Your task to perform on an android device: Go to privacy settings Image 0: 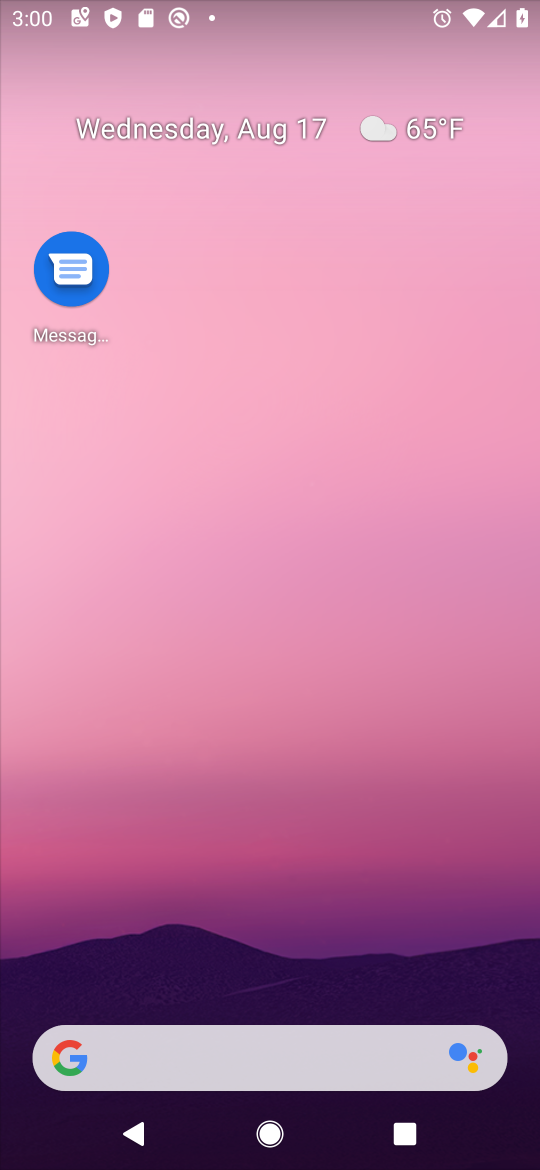
Step 0: drag from (331, 968) to (379, 130)
Your task to perform on an android device: Go to privacy settings Image 1: 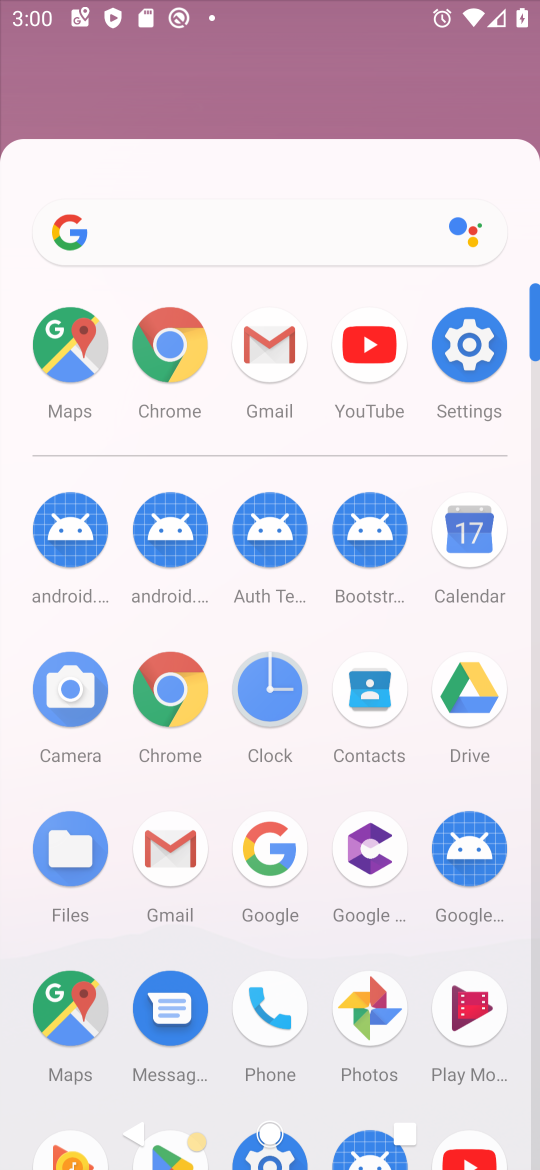
Step 1: click (461, 197)
Your task to perform on an android device: Go to privacy settings Image 2: 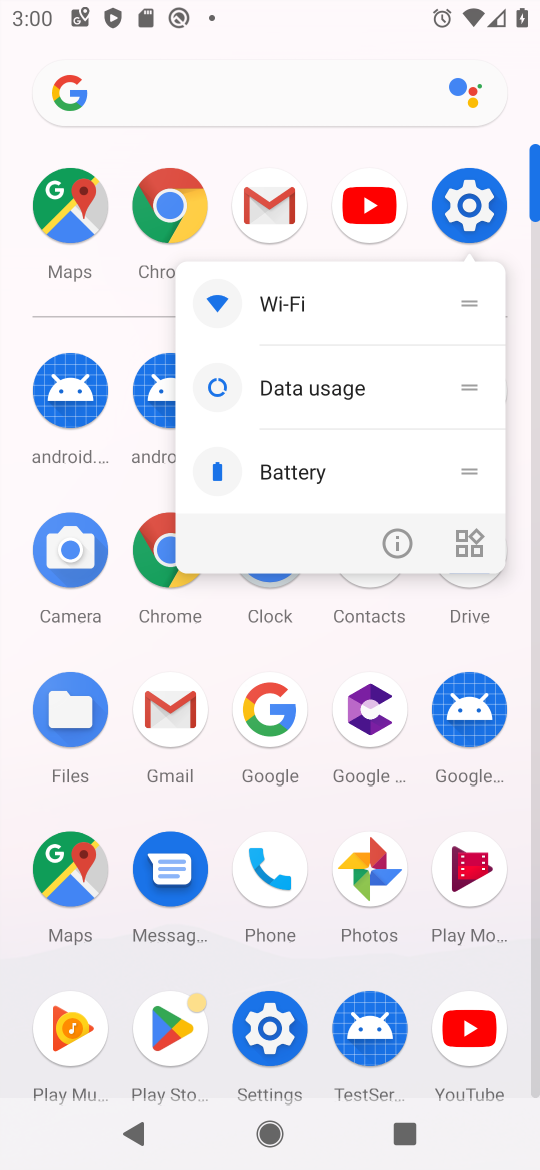
Step 2: click (492, 196)
Your task to perform on an android device: Go to privacy settings Image 3: 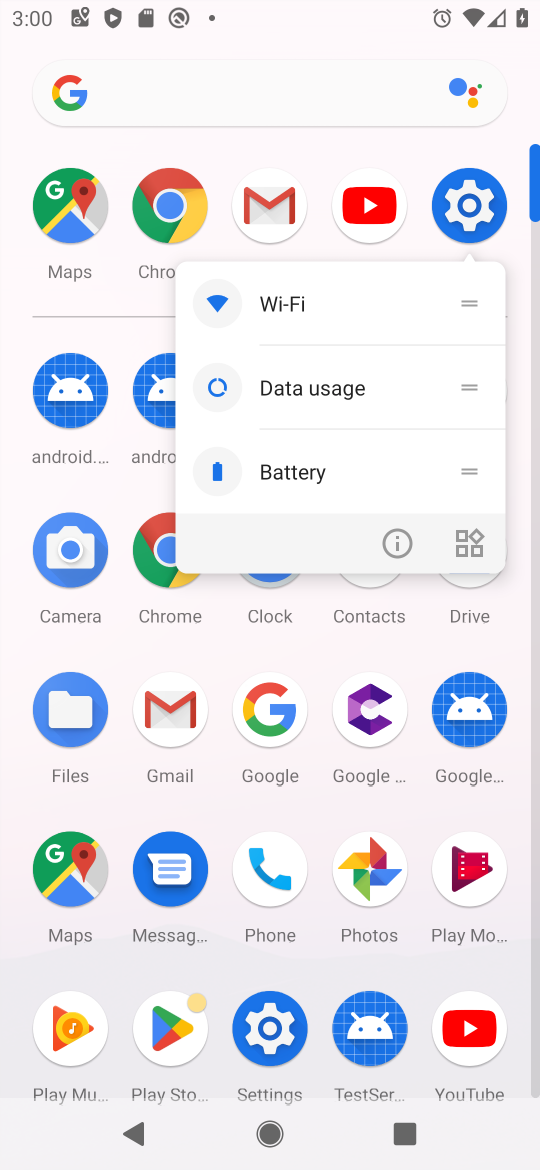
Step 3: click (476, 200)
Your task to perform on an android device: Go to privacy settings Image 4: 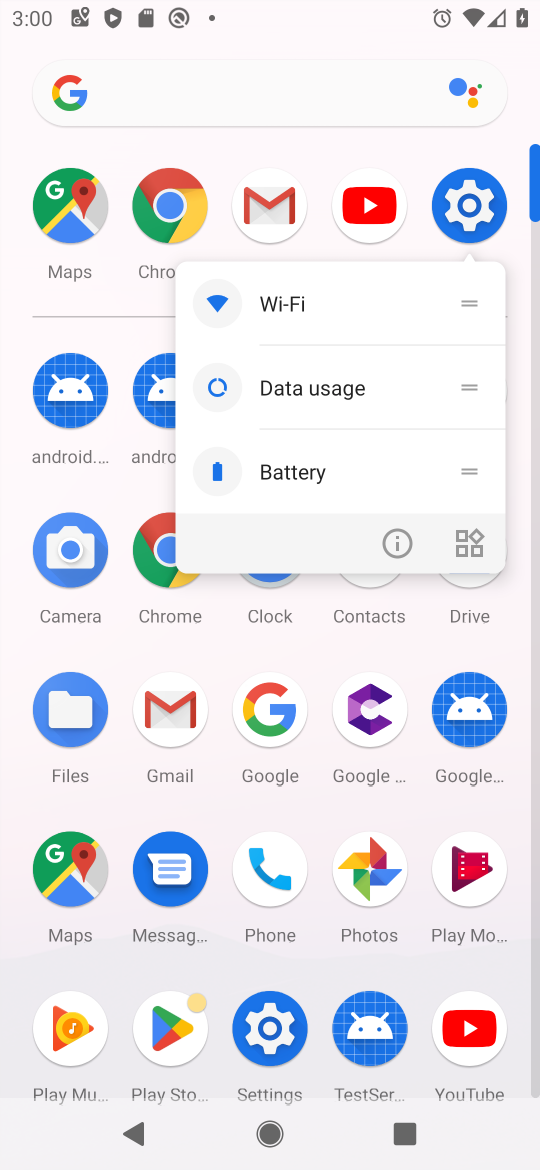
Step 4: click (474, 200)
Your task to perform on an android device: Go to privacy settings Image 5: 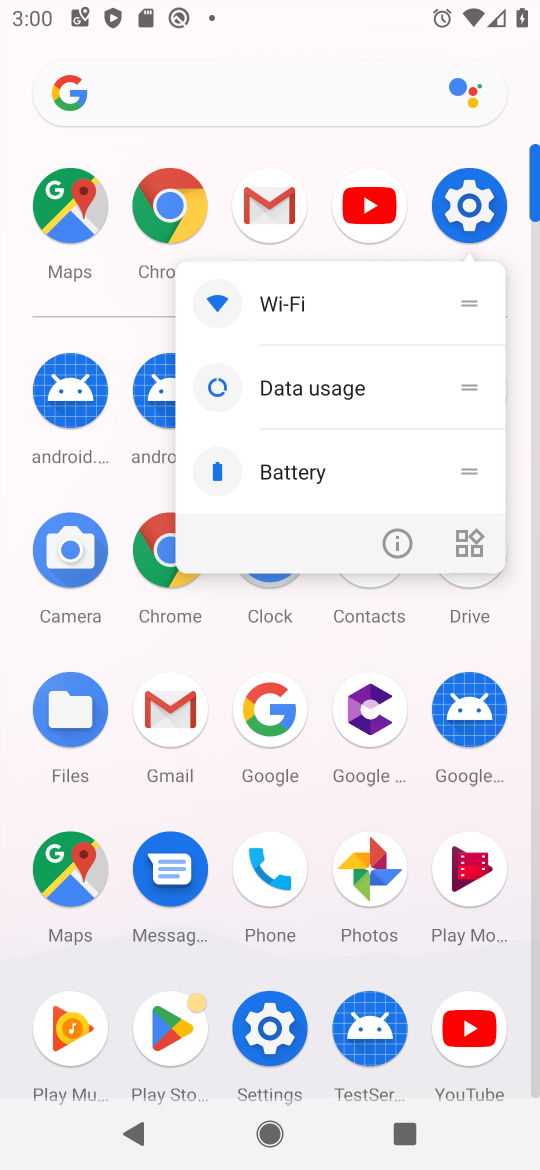
Step 5: click (474, 200)
Your task to perform on an android device: Go to privacy settings Image 6: 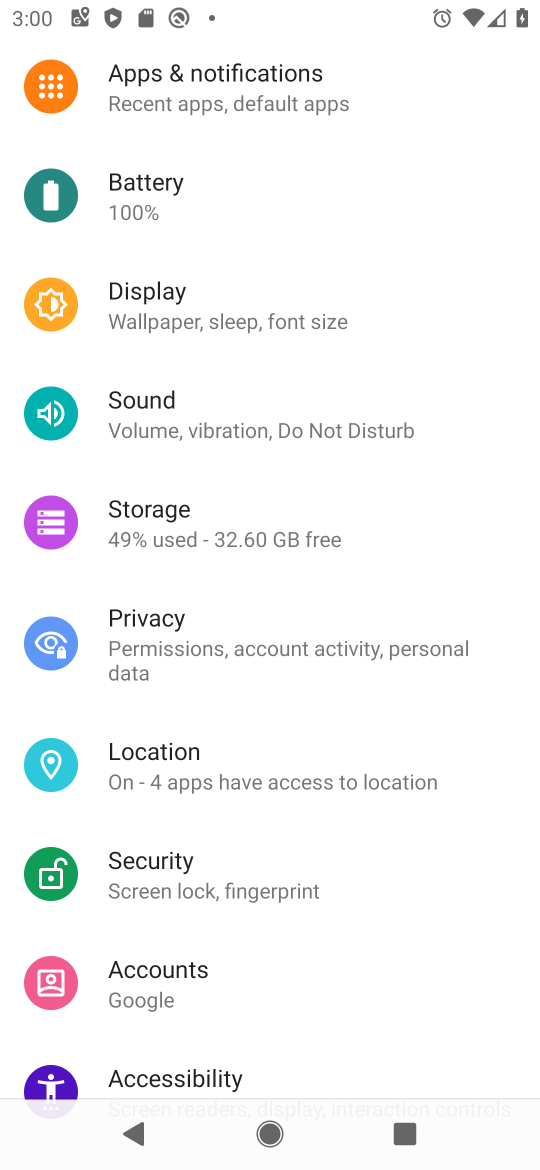
Step 6: click (196, 618)
Your task to perform on an android device: Go to privacy settings Image 7: 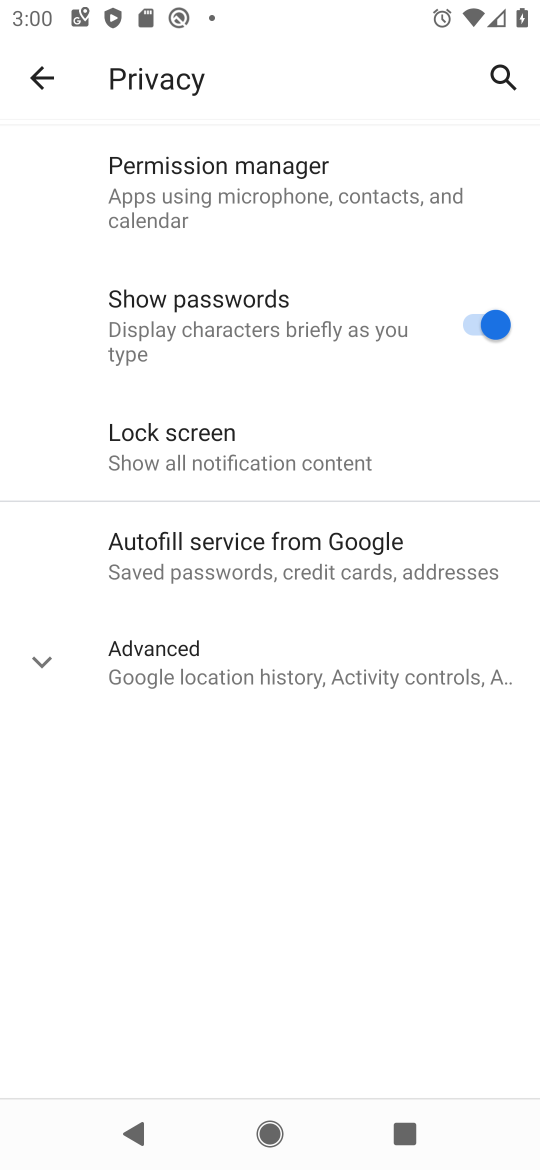
Step 7: task complete